Your task to perform on an android device: find which apps use the phone's location Image 0: 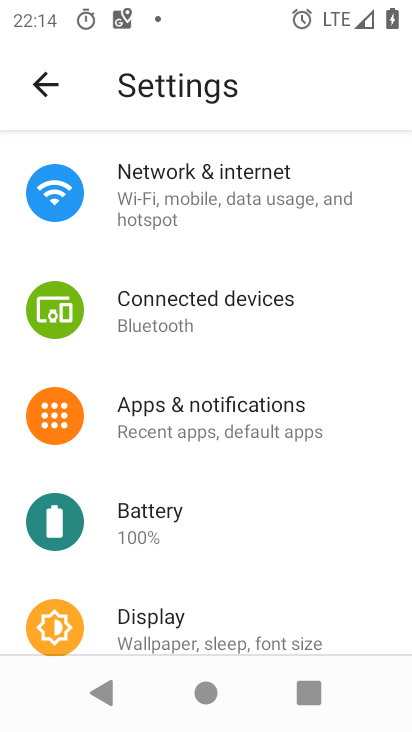
Step 0: click (278, 211)
Your task to perform on an android device: find which apps use the phone's location Image 1: 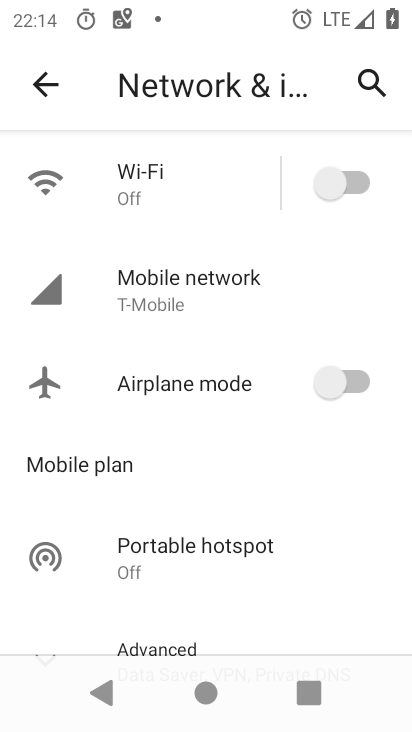
Step 1: drag from (246, 435) to (296, 201)
Your task to perform on an android device: find which apps use the phone's location Image 2: 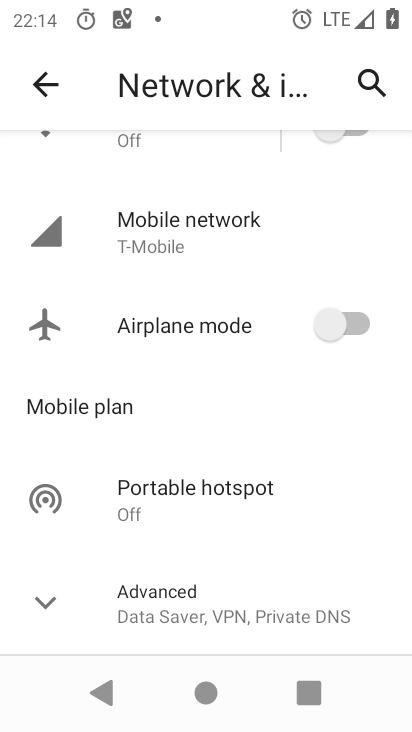
Step 2: drag from (262, 506) to (22, 454)
Your task to perform on an android device: find which apps use the phone's location Image 3: 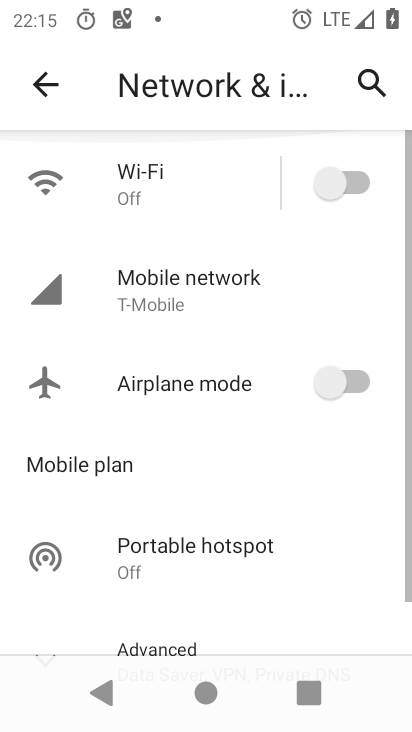
Step 3: drag from (241, 520) to (277, 208)
Your task to perform on an android device: find which apps use the phone's location Image 4: 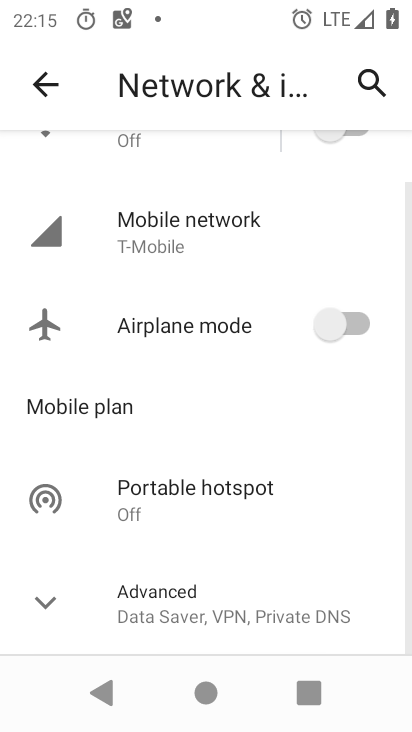
Step 4: drag from (230, 290) to (276, 713)
Your task to perform on an android device: find which apps use the phone's location Image 5: 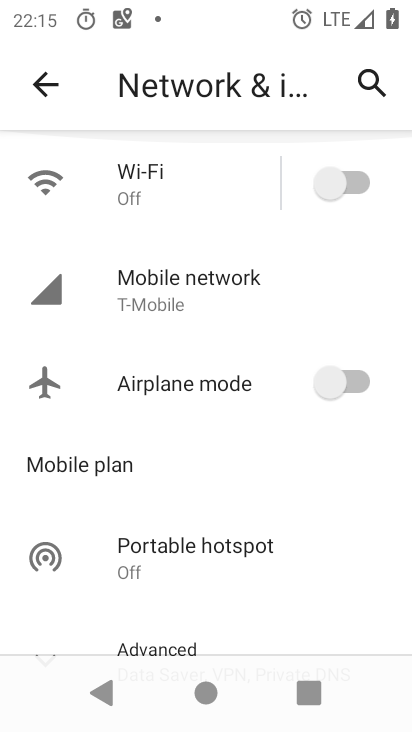
Step 5: press home button
Your task to perform on an android device: find which apps use the phone's location Image 6: 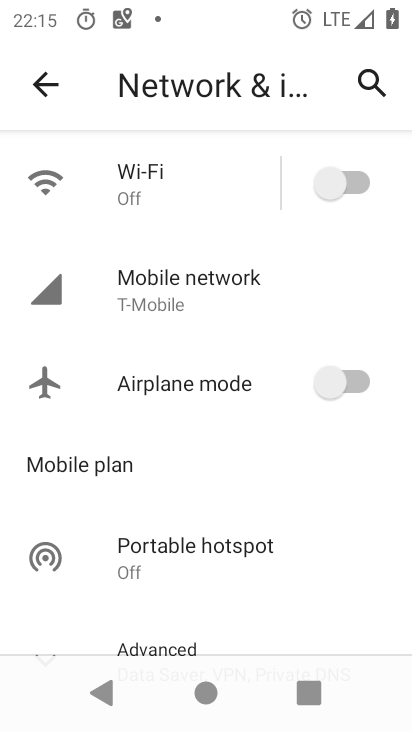
Step 6: drag from (276, 713) to (404, 482)
Your task to perform on an android device: find which apps use the phone's location Image 7: 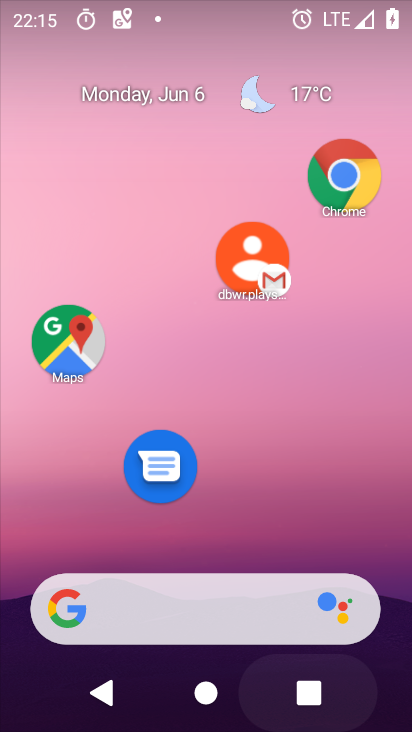
Step 7: drag from (194, 540) to (213, 83)
Your task to perform on an android device: find which apps use the phone's location Image 8: 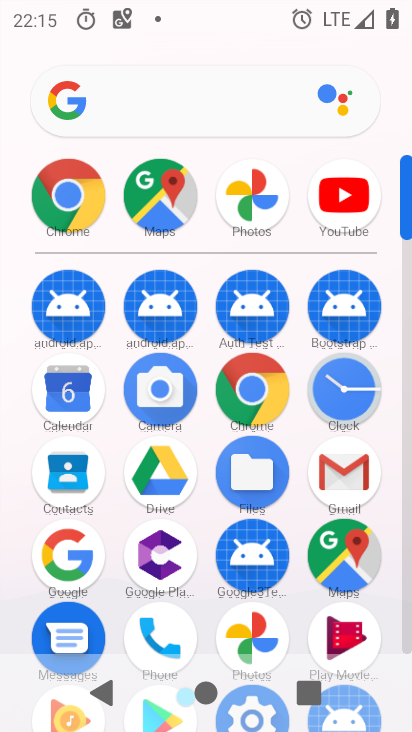
Step 8: drag from (202, 459) to (237, 155)
Your task to perform on an android device: find which apps use the phone's location Image 9: 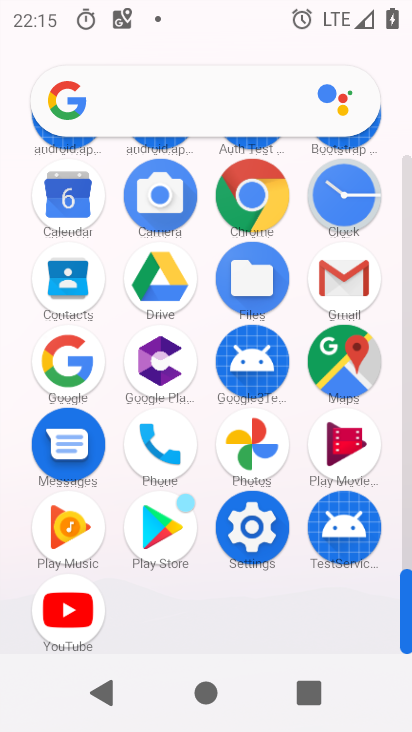
Step 9: click (258, 532)
Your task to perform on an android device: find which apps use the phone's location Image 10: 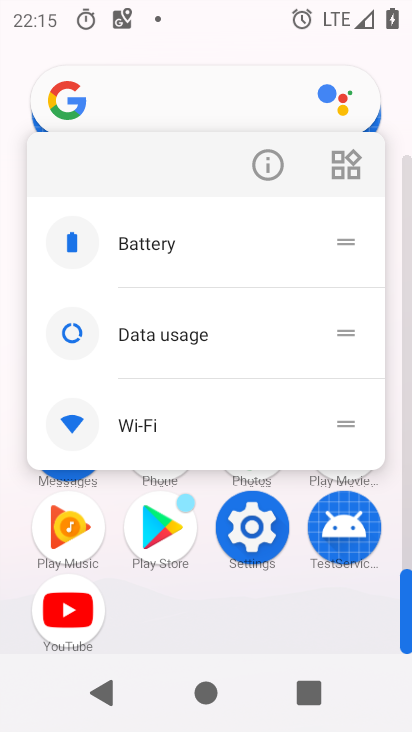
Step 10: click (263, 156)
Your task to perform on an android device: find which apps use the phone's location Image 11: 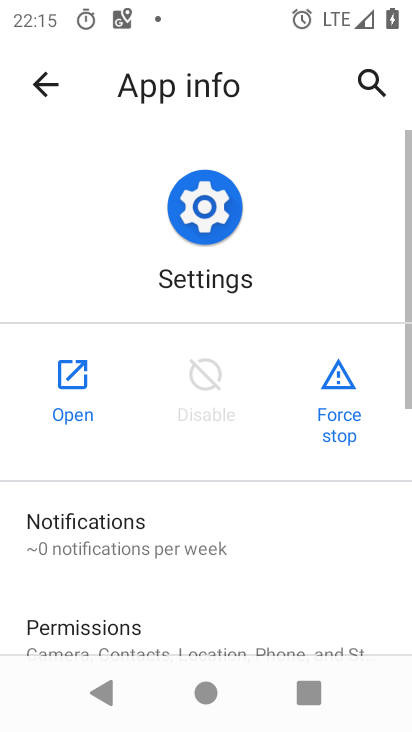
Step 11: click (63, 370)
Your task to perform on an android device: find which apps use the phone's location Image 12: 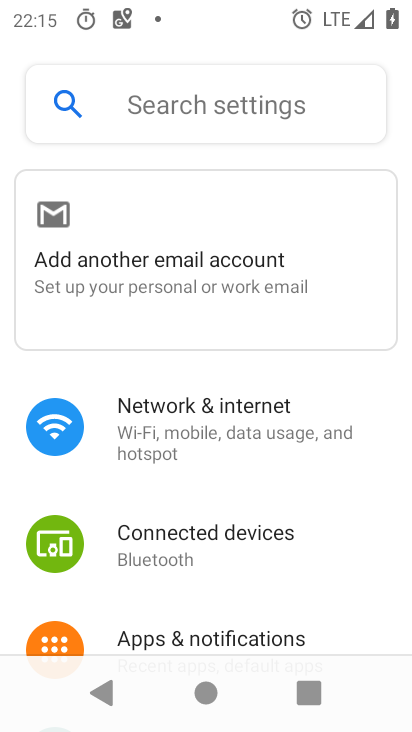
Step 12: drag from (171, 559) to (201, 2)
Your task to perform on an android device: find which apps use the phone's location Image 13: 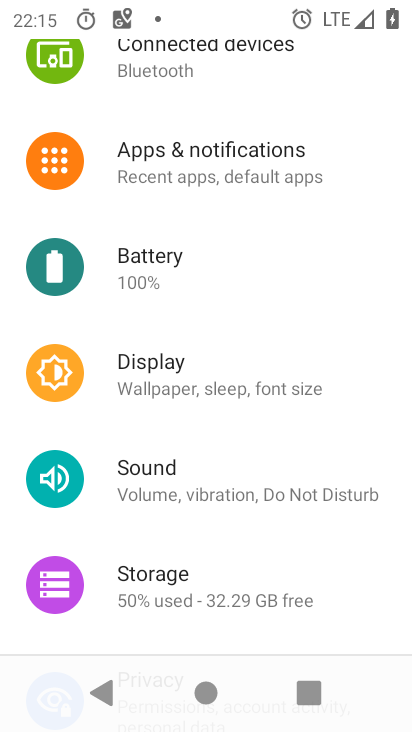
Step 13: drag from (221, 514) to (230, 182)
Your task to perform on an android device: find which apps use the phone's location Image 14: 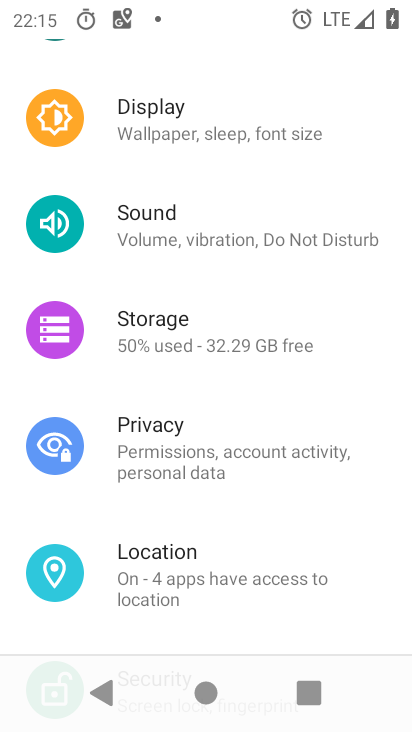
Step 14: click (210, 568)
Your task to perform on an android device: find which apps use the phone's location Image 15: 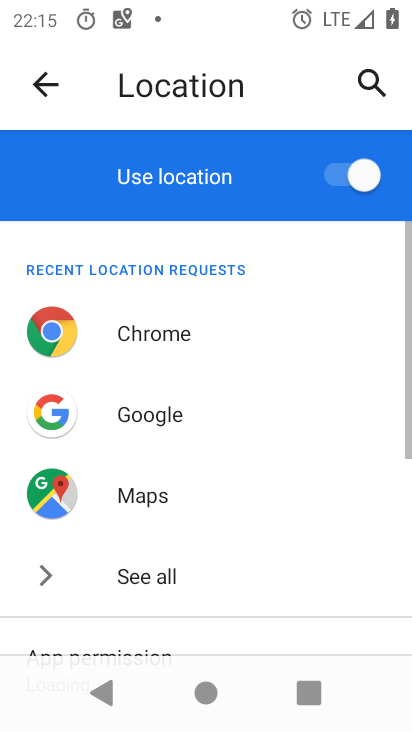
Step 15: drag from (211, 487) to (295, 89)
Your task to perform on an android device: find which apps use the phone's location Image 16: 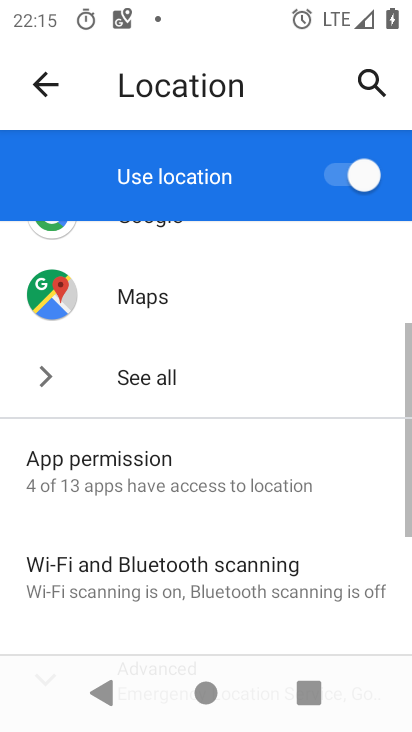
Step 16: click (180, 461)
Your task to perform on an android device: find which apps use the phone's location Image 17: 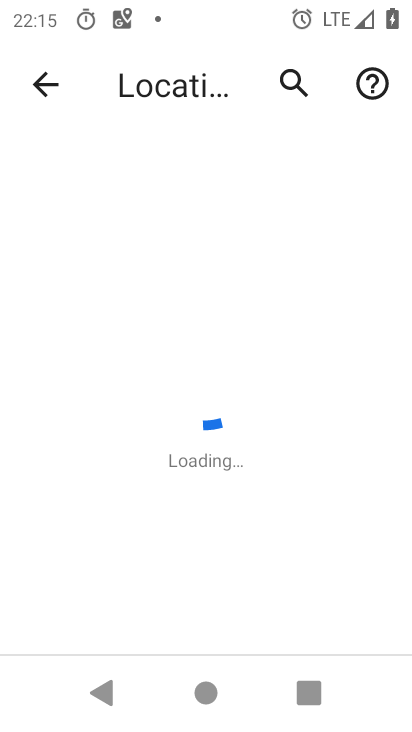
Step 17: task complete